Your task to perform on an android device: See recent photos Image 0: 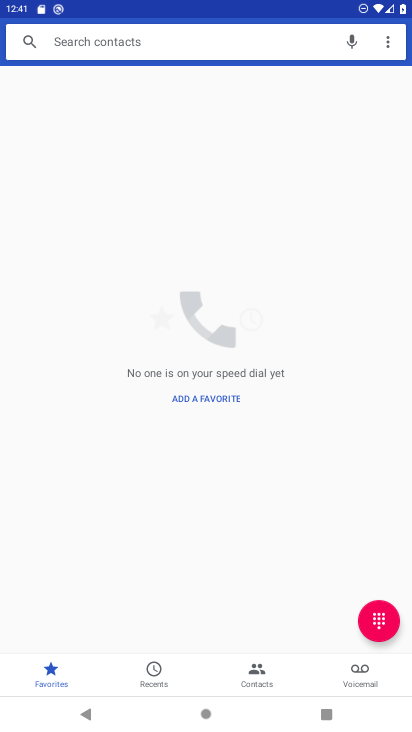
Step 0: press home button
Your task to perform on an android device: See recent photos Image 1: 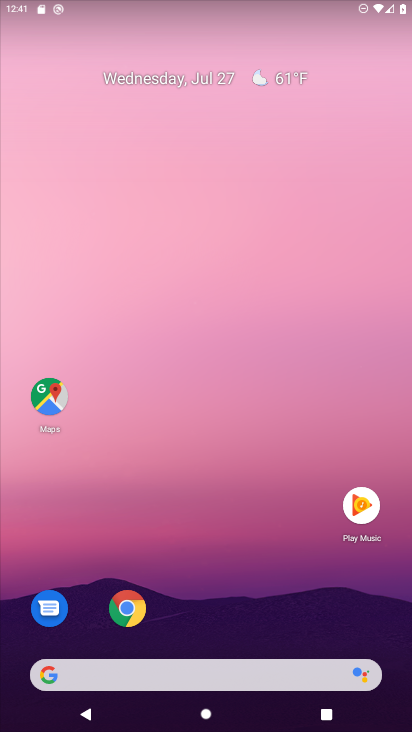
Step 1: drag from (285, 600) to (303, 276)
Your task to perform on an android device: See recent photos Image 2: 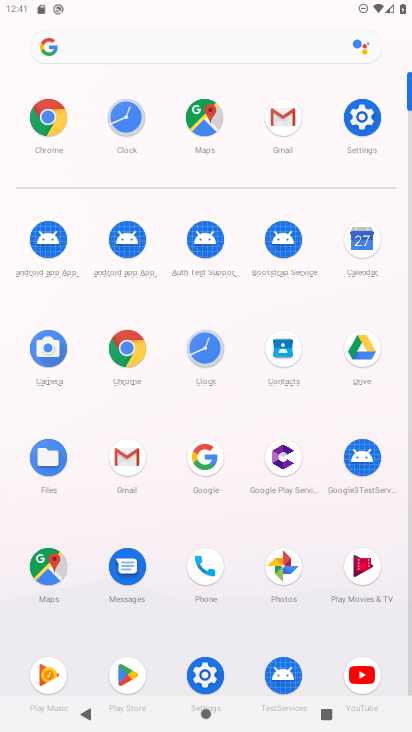
Step 2: click (278, 559)
Your task to perform on an android device: See recent photos Image 3: 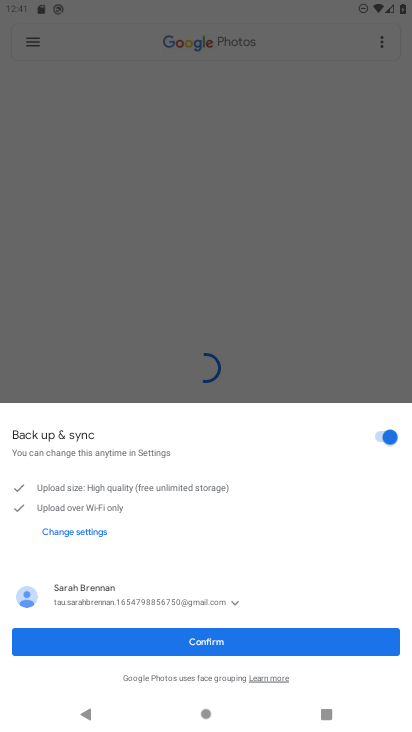
Step 3: click (357, 641)
Your task to perform on an android device: See recent photos Image 4: 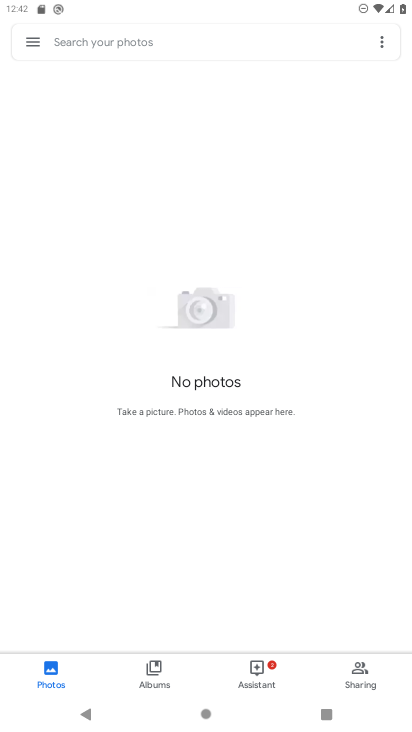
Step 4: task complete